Your task to perform on an android device: Turn off the flashlight Image 0: 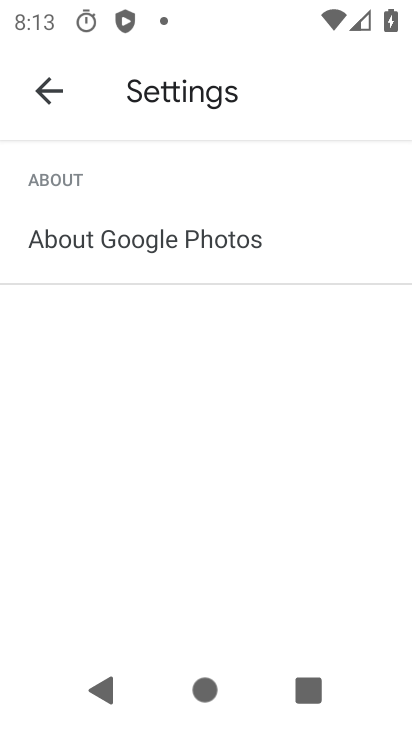
Step 0: press home button
Your task to perform on an android device: Turn off the flashlight Image 1: 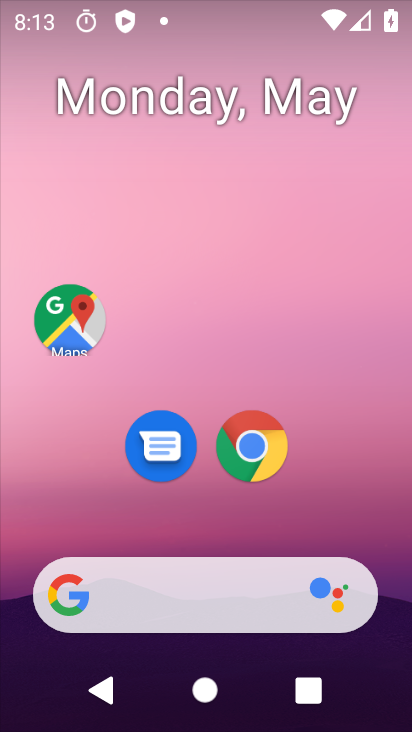
Step 1: task complete